Your task to perform on an android device: Clear the cart on walmart.com. Search for usb-a on walmart.com, select the first entry, and add it to the cart. Image 0: 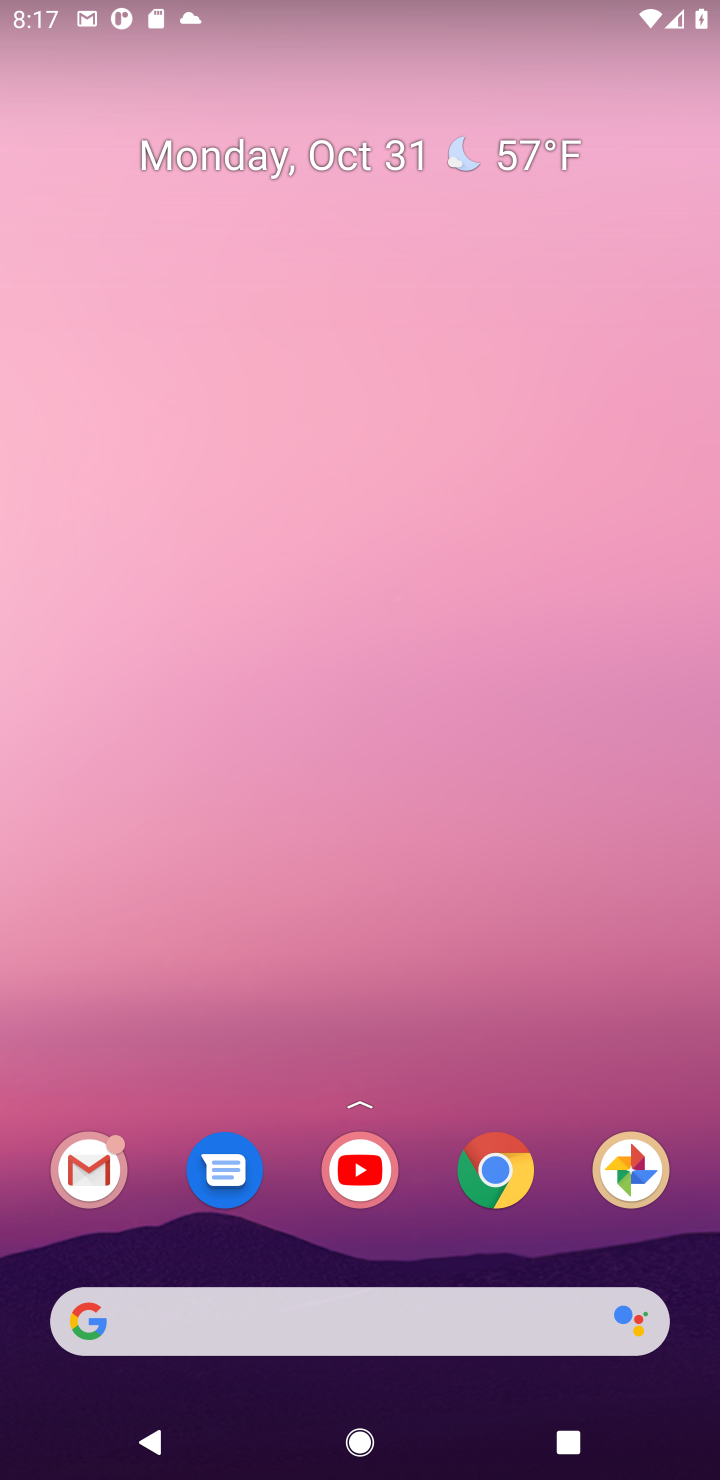
Step 0: click (494, 1200)
Your task to perform on an android device: Clear the cart on walmart.com. Search for usb-a on walmart.com, select the first entry, and add it to the cart. Image 1: 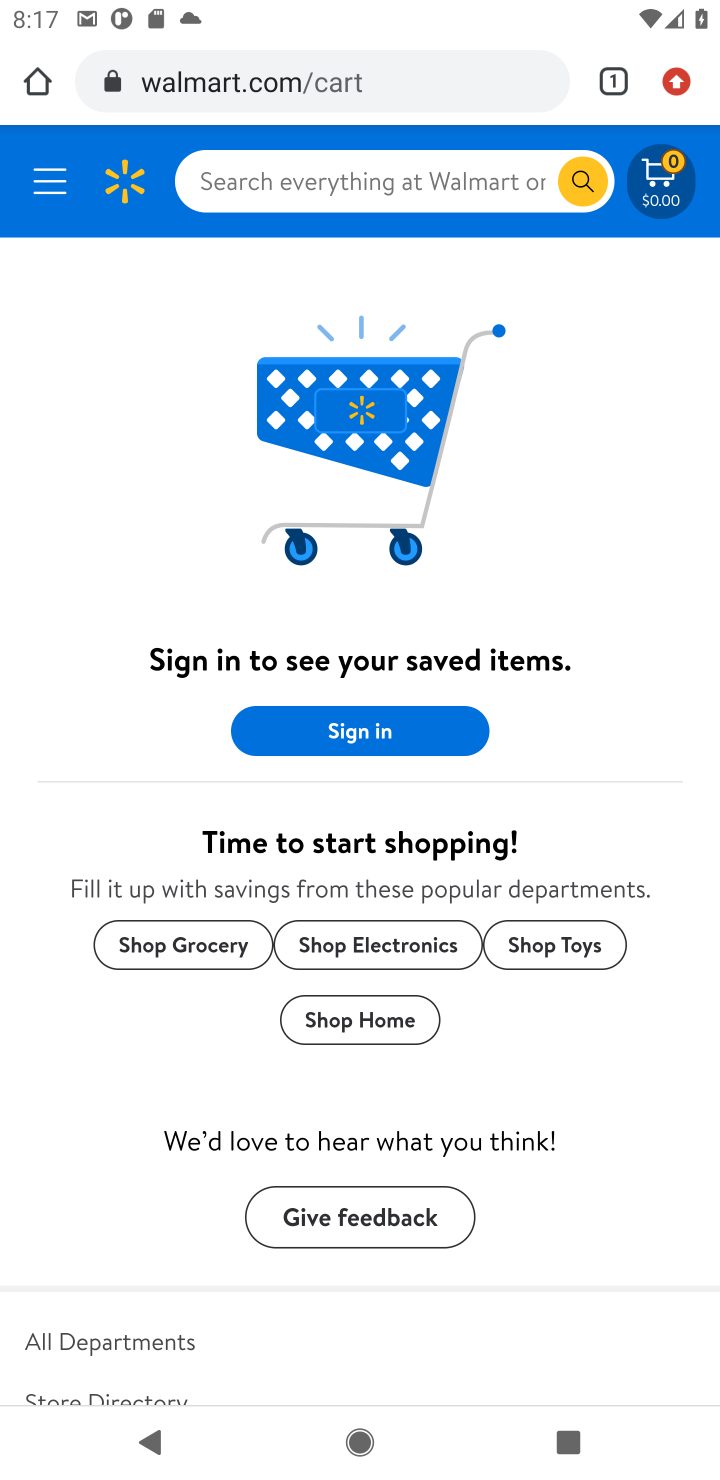
Step 1: click (494, 1200)
Your task to perform on an android device: Clear the cart on walmart.com. Search for usb-a on walmart.com, select the first entry, and add it to the cart. Image 2: 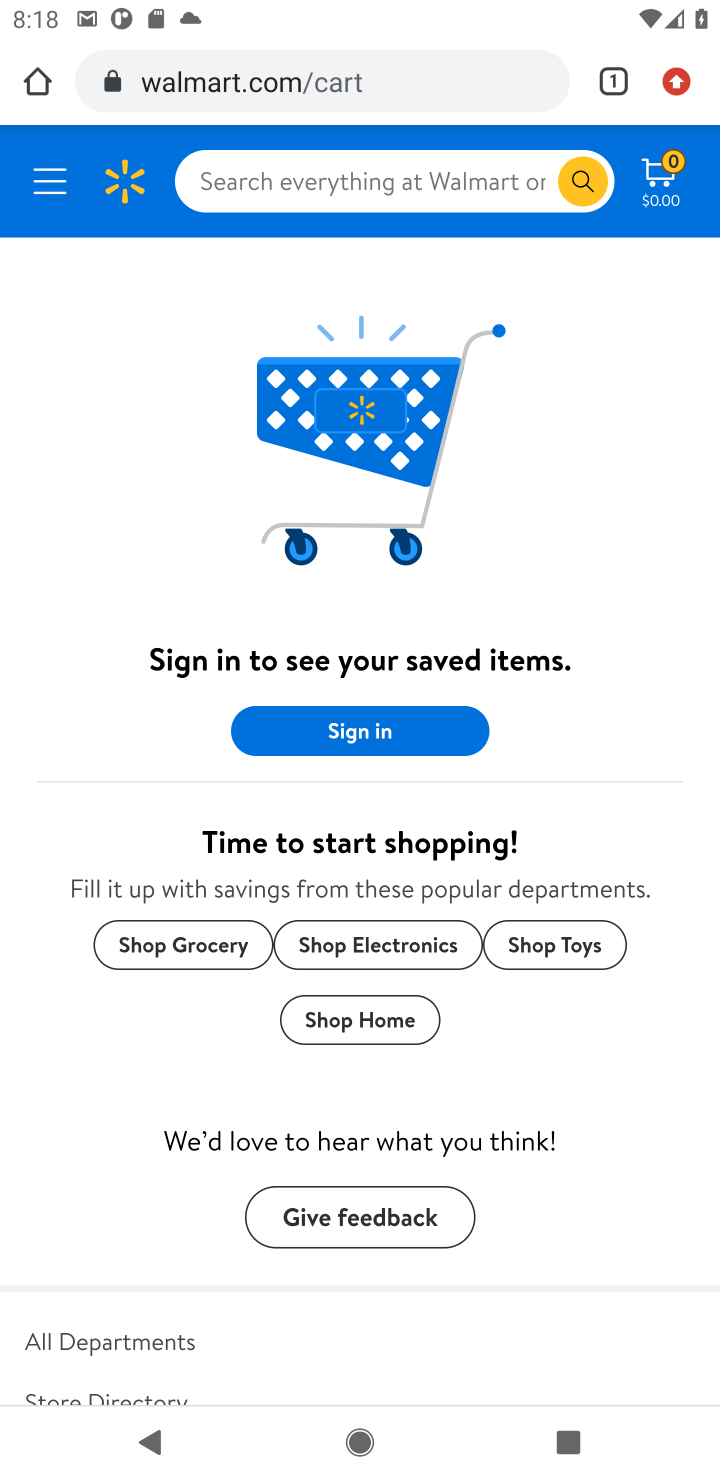
Step 2: click (441, 165)
Your task to perform on an android device: Clear the cart on walmart.com. Search for usb-a on walmart.com, select the first entry, and add it to the cart. Image 3: 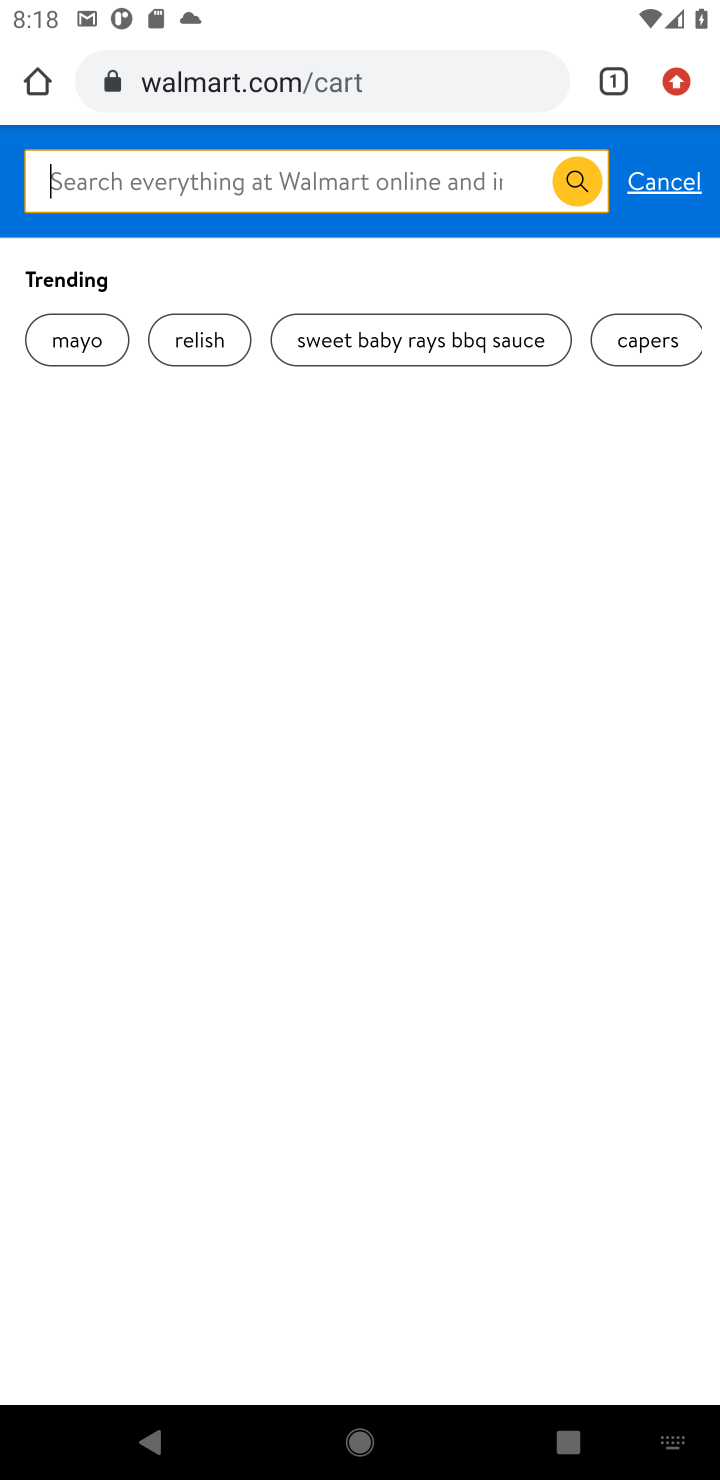
Step 3: type "usb-a"
Your task to perform on an android device: Clear the cart on walmart.com. Search for usb-a on walmart.com, select the first entry, and add it to the cart. Image 4: 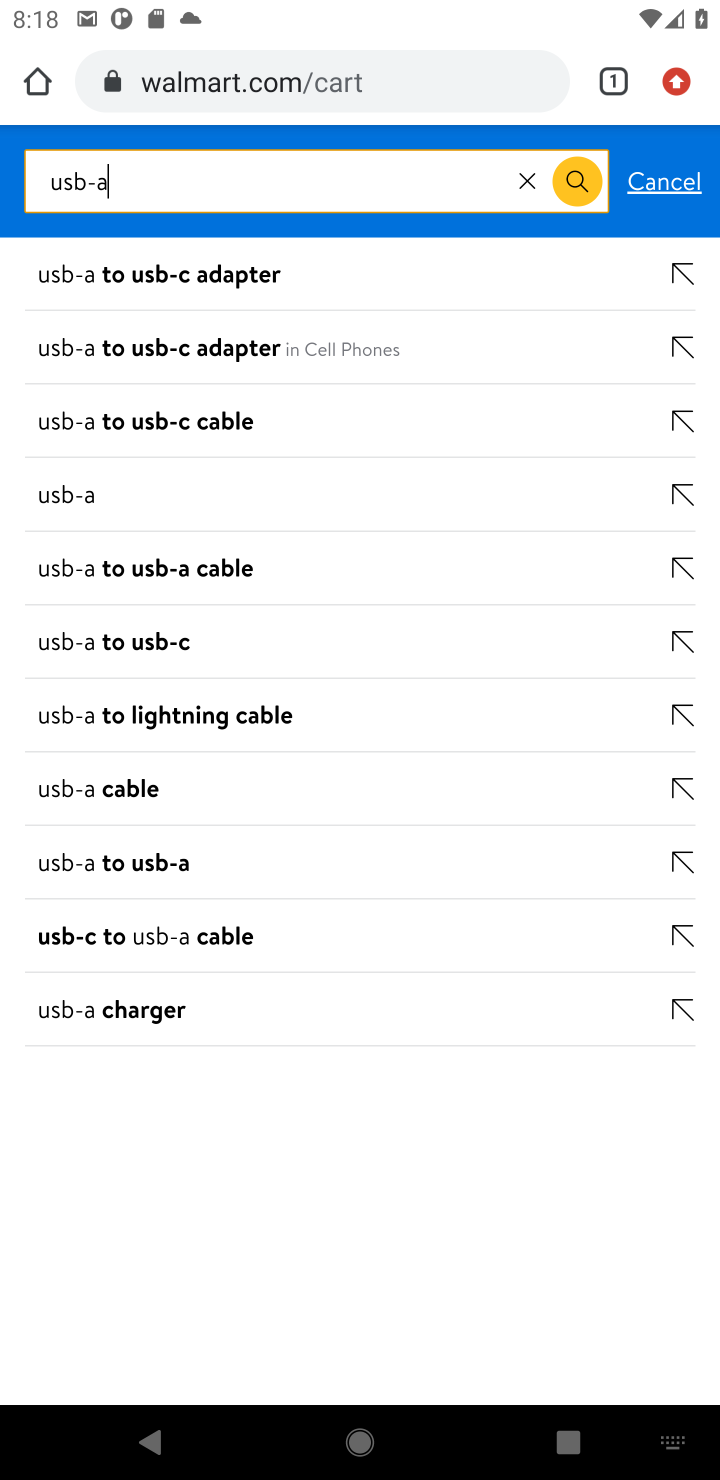
Step 4: click (565, 171)
Your task to perform on an android device: Clear the cart on walmart.com. Search for usb-a on walmart.com, select the first entry, and add it to the cart. Image 5: 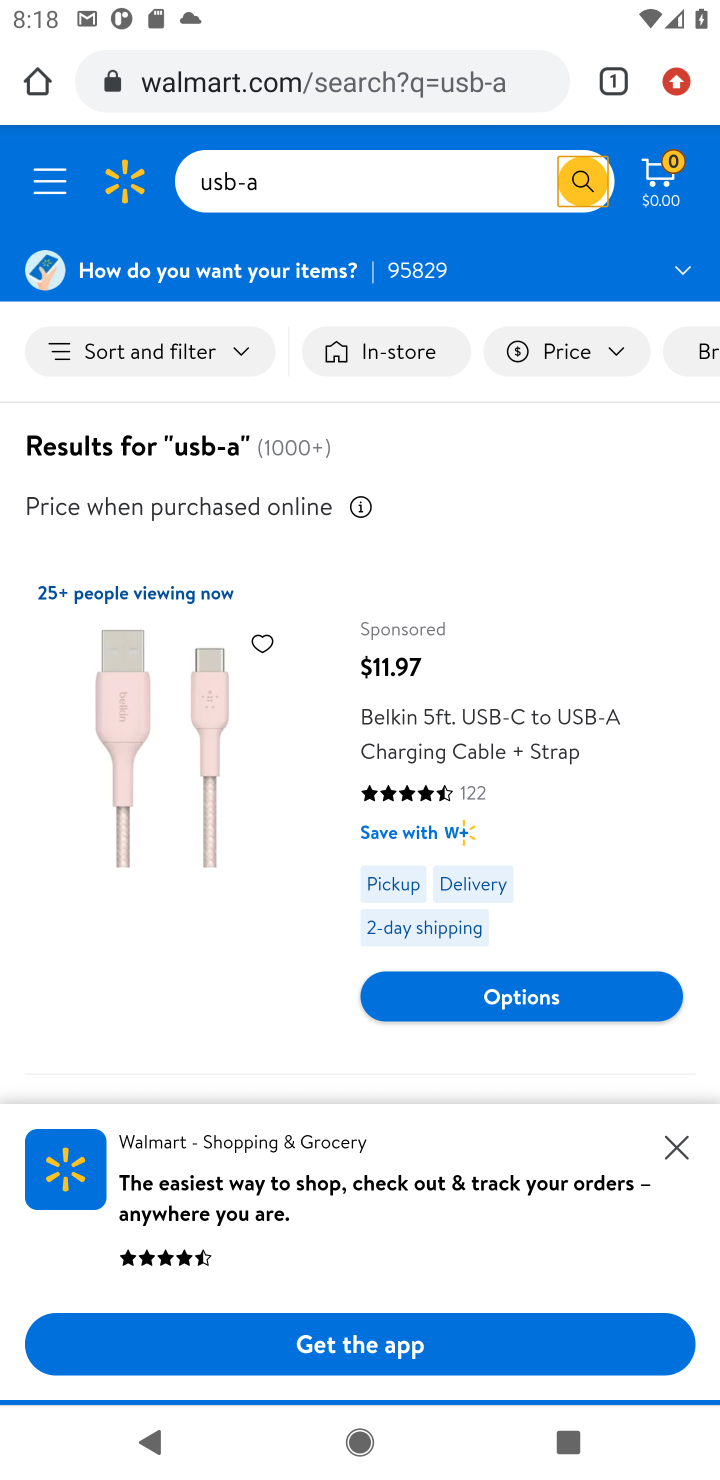
Step 5: click (667, 1154)
Your task to perform on an android device: Clear the cart on walmart.com. Search for usb-a on walmart.com, select the first entry, and add it to the cart. Image 6: 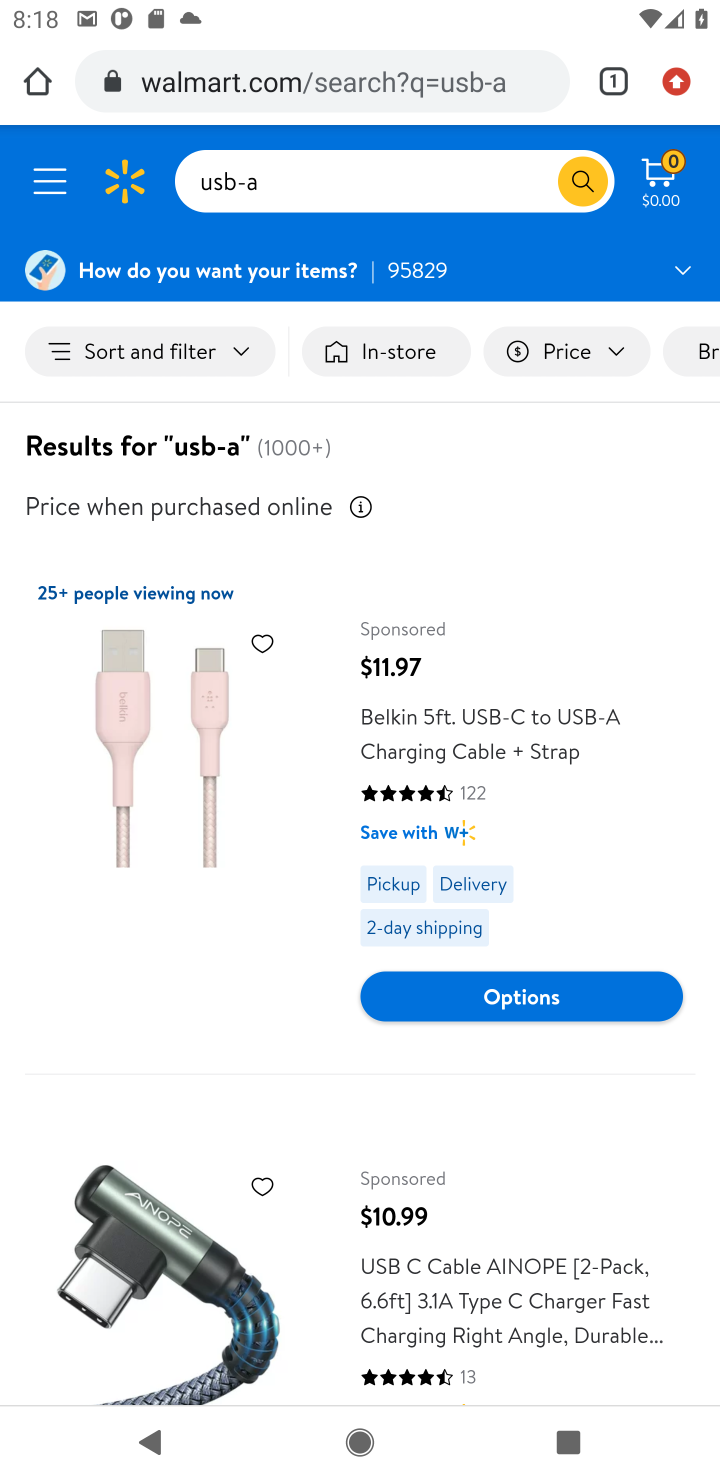
Step 6: drag from (263, 1290) to (490, 515)
Your task to perform on an android device: Clear the cart on walmart.com. Search for usb-a on walmart.com, select the first entry, and add it to the cart. Image 7: 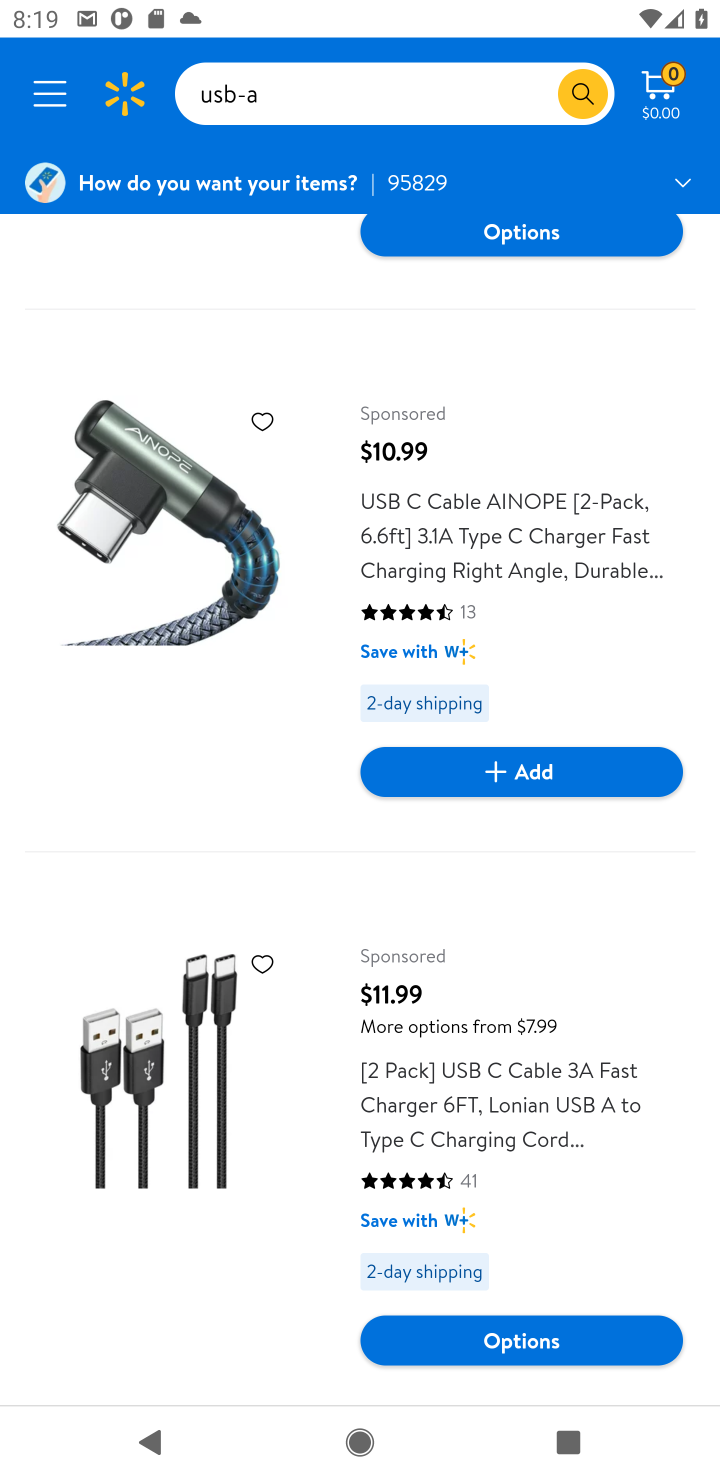
Step 7: click (468, 769)
Your task to perform on an android device: Clear the cart on walmart.com. Search for usb-a on walmart.com, select the first entry, and add it to the cart. Image 8: 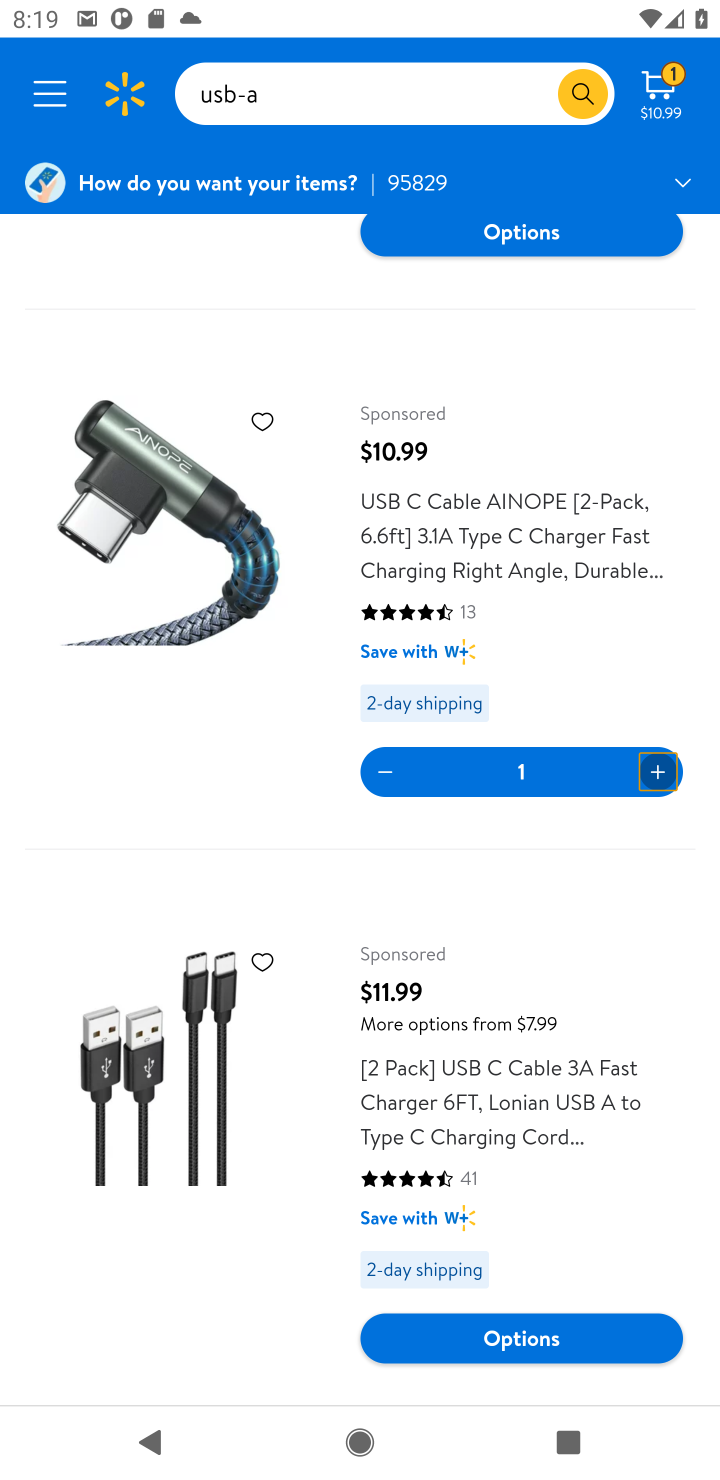
Step 8: drag from (252, 315) to (295, 859)
Your task to perform on an android device: Clear the cart on walmart.com. Search for usb-a on walmart.com, select the first entry, and add it to the cart. Image 9: 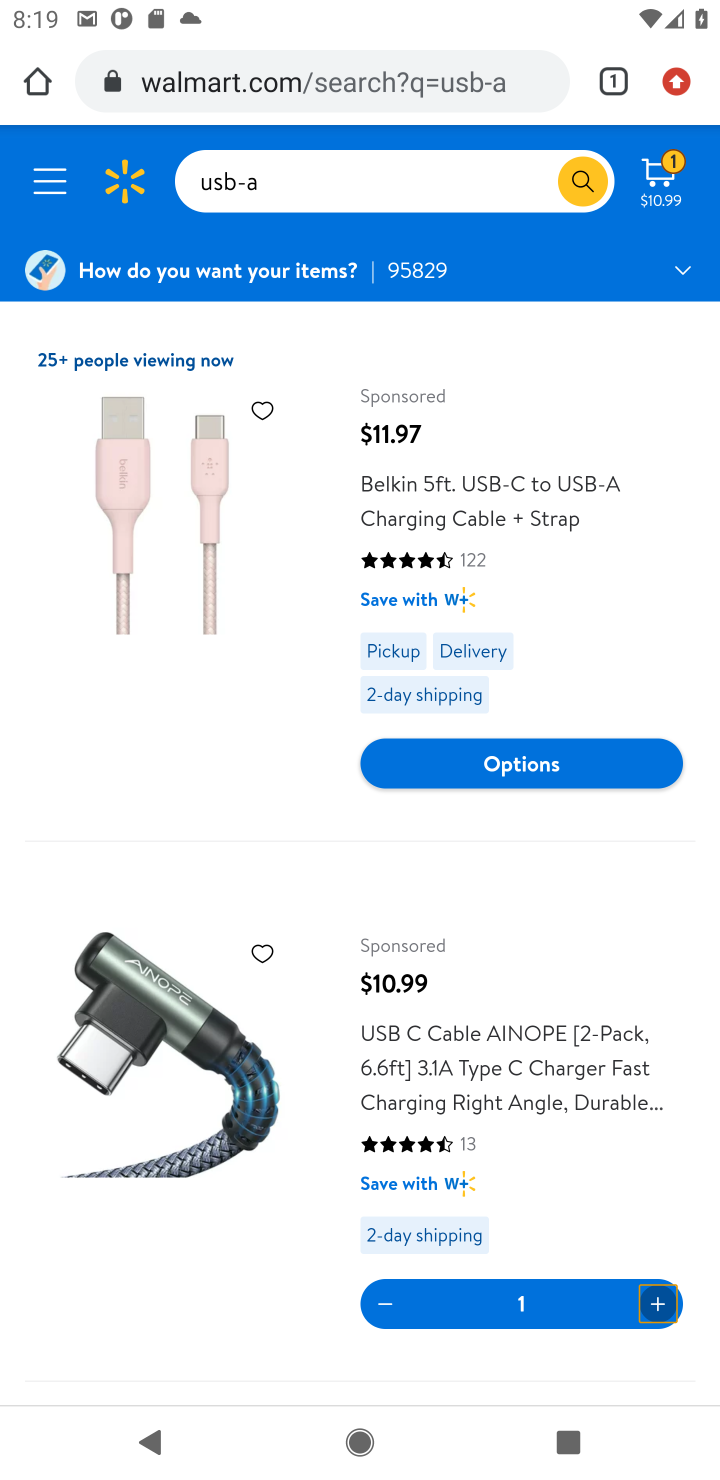
Step 9: click (443, 780)
Your task to perform on an android device: Clear the cart on walmart.com. Search for usb-a on walmart.com, select the first entry, and add it to the cart. Image 10: 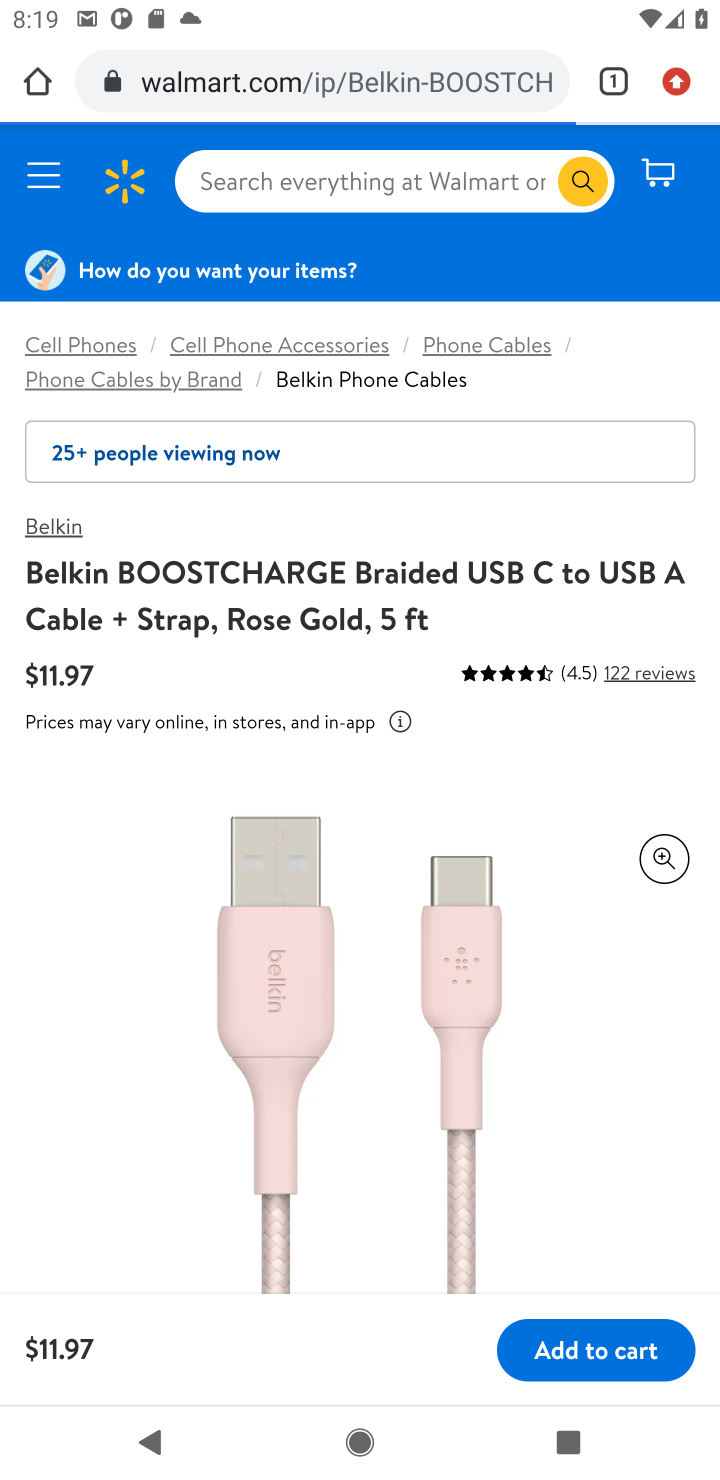
Step 10: click (383, 1297)
Your task to perform on an android device: Clear the cart on walmart.com. Search for usb-a on walmart.com, select the first entry, and add it to the cart. Image 11: 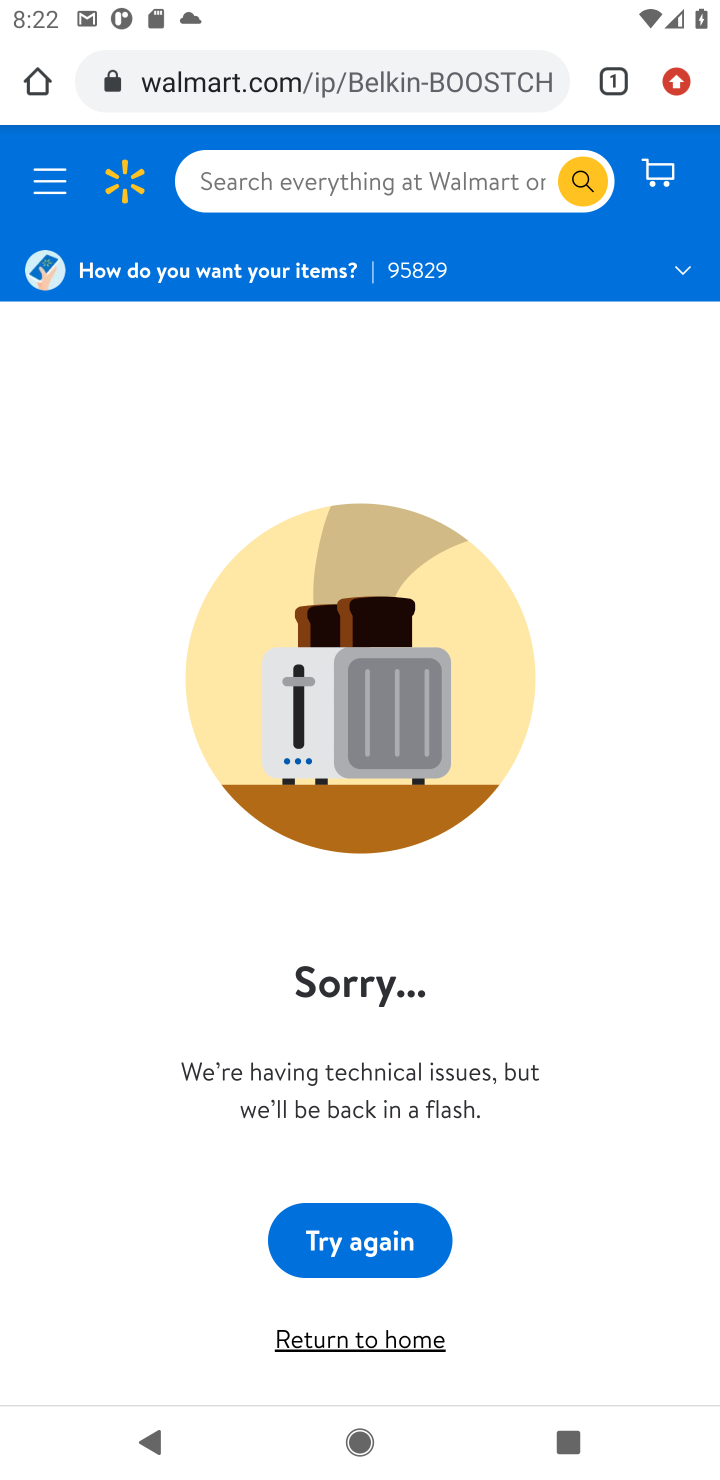
Step 11: task complete